Your task to perform on an android device: turn pop-ups on in chrome Image 0: 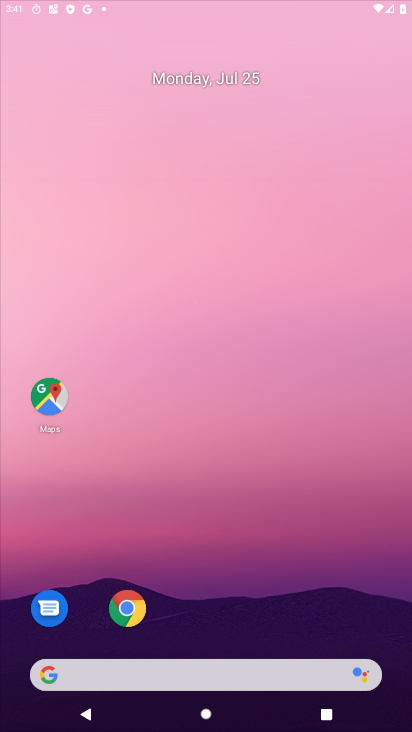
Step 0: press home button
Your task to perform on an android device: turn pop-ups on in chrome Image 1: 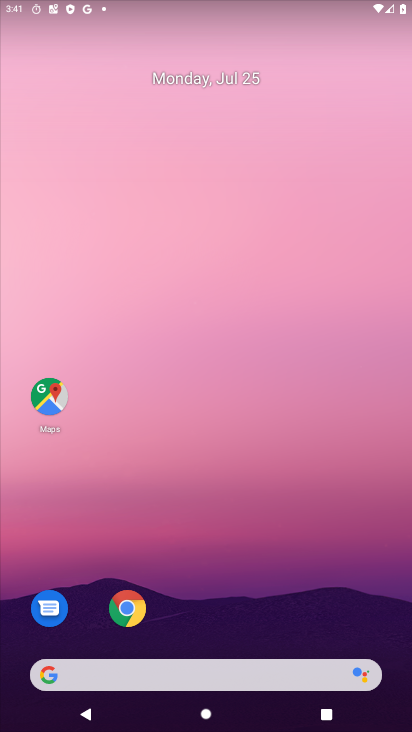
Step 1: click (125, 603)
Your task to perform on an android device: turn pop-ups on in chrome Image 2: 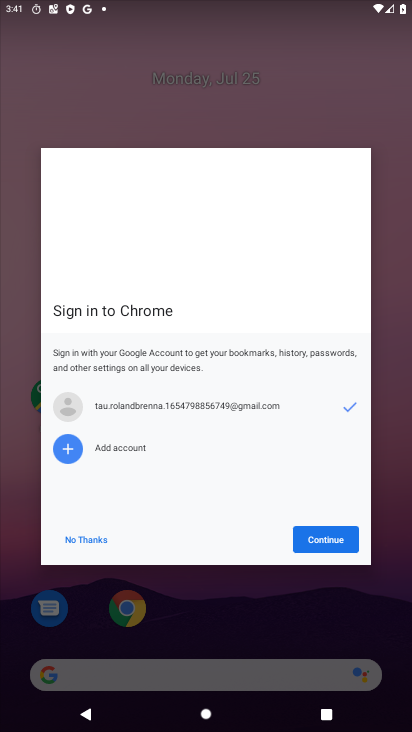
Step 2: click (329, 537)
Your task to perform on an android device: turn pop-ups on in chrome Image 3: 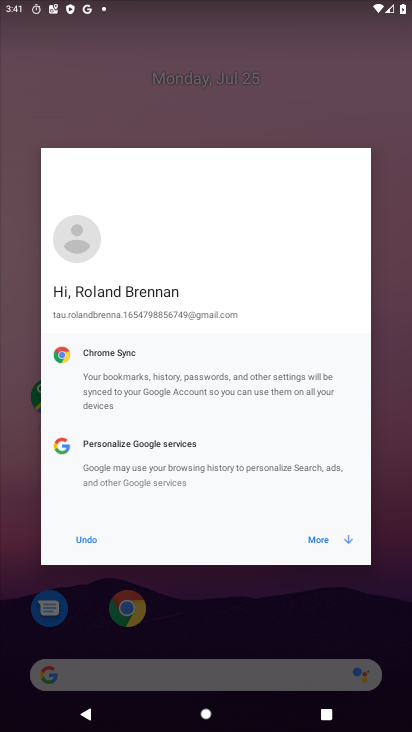
Step 3: click (327, 533)
Your task to perform on an android device: turn pop-ups on in chrome Image 4: 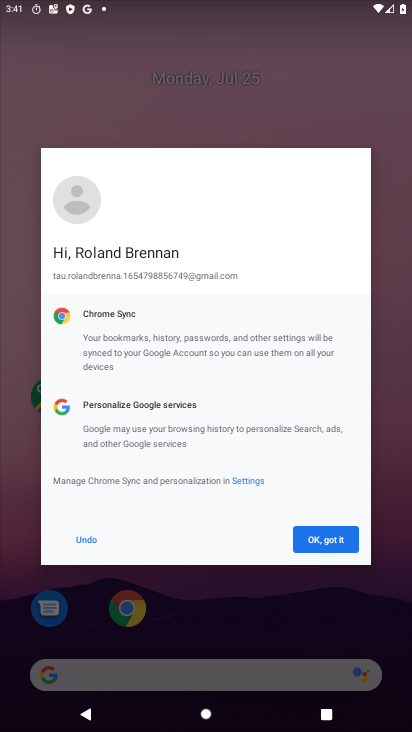
Step 4: click (329, 536)
Your task to perform on an android device: turn pop-ups on in chrome Image 5: 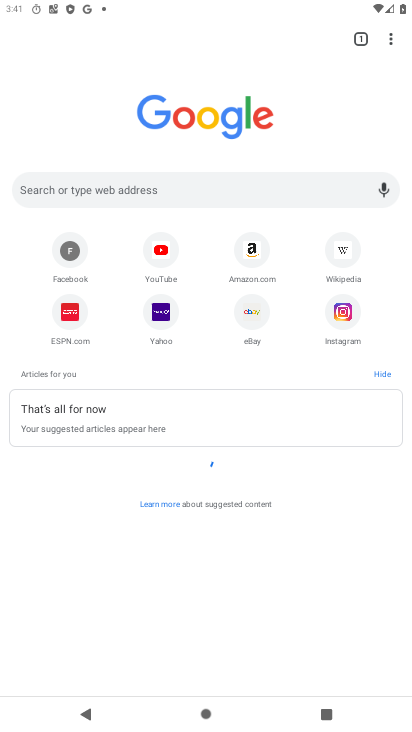
Step 5: click (387, 38)
Your task to perform on an android device: turn pop-ups on in chrome Image 6: 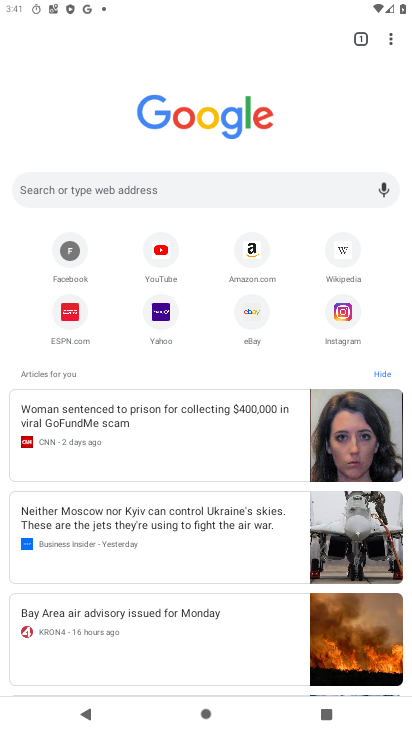
Step 6: click (395, 37)
Your task to perform on an android device: turn pop-ups on in chrome Image 7: 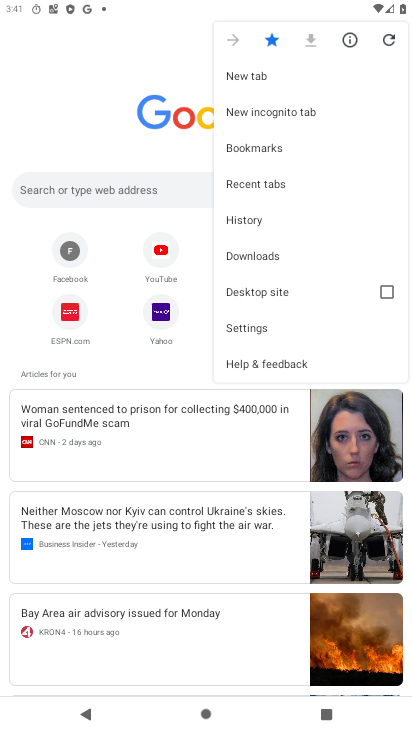
Step 7: click (270, 322)
Your task to perform on an android device: turn pop-ups on in chrome Image 8: 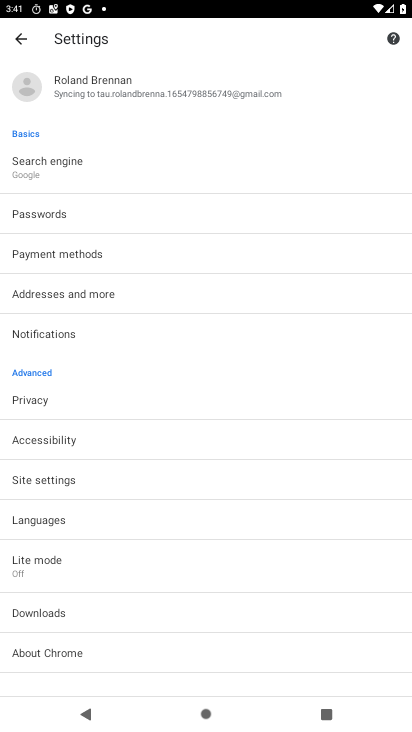
Step 8: click (89, 479)
Your task to perform on an android device: turn pop-ups on in chrome Image 9: 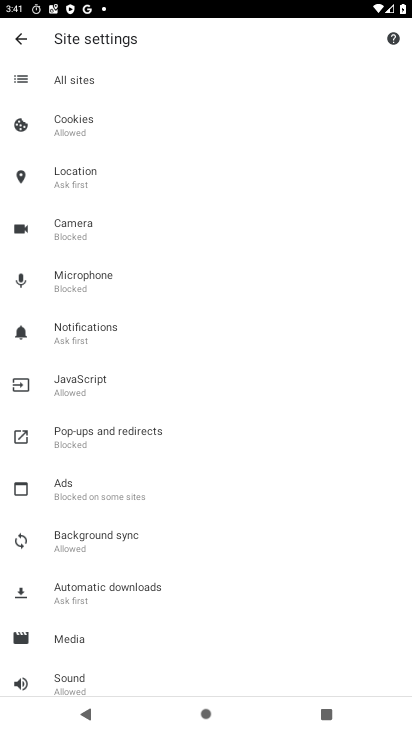
Step 9: click (109, 438)
Your task to perform on an android device: turn pop-ups on in chrome Image 10: 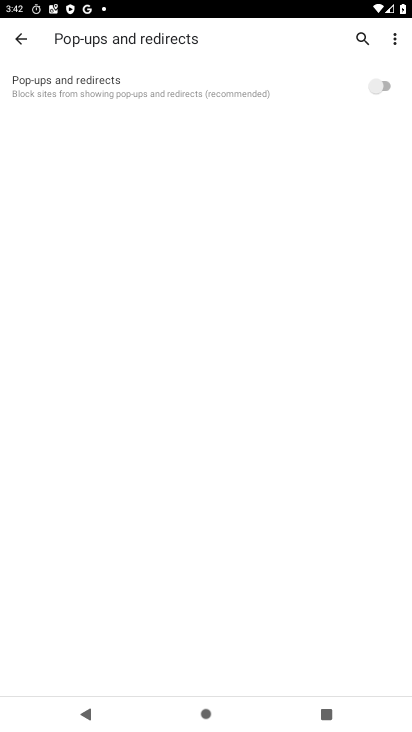
Step 10: click (386, 88)
Your task to perform on an android device: turn pop-ups on in chrome Image 11: 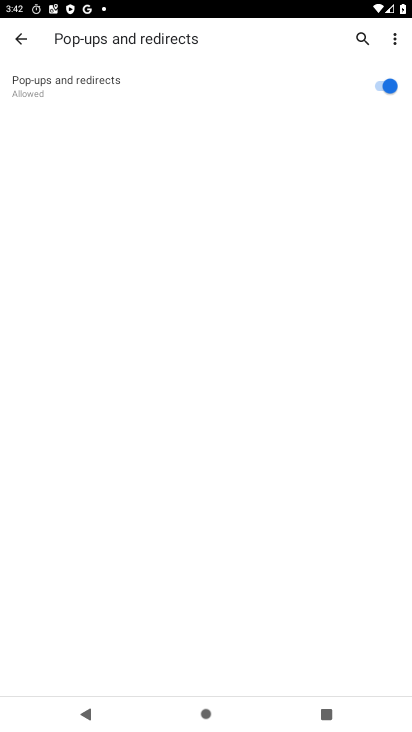
Step 11: task complete